Your task to perform on an android device: Open battery settings Image 0: 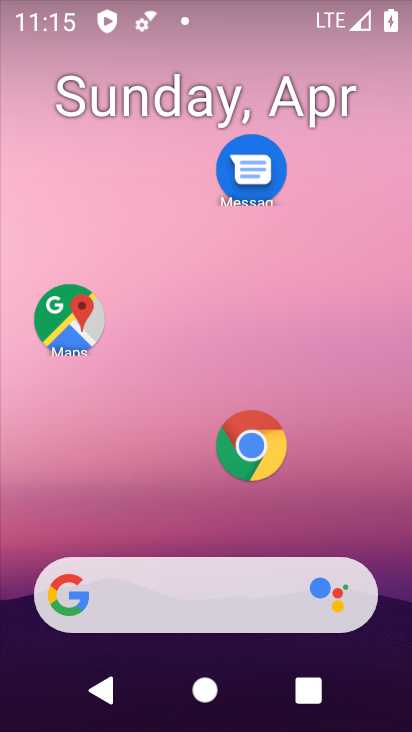
Step 0: drag from (175, 570) to (313, 91)
Your task to perform on an android device: Open battery settings Image 1: 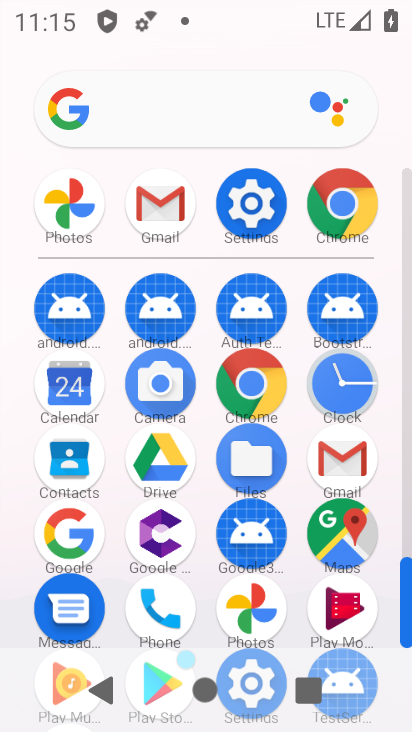
Step 1: click (257, 201)
Your task to perform on an android device: Open battery settings Image 2: 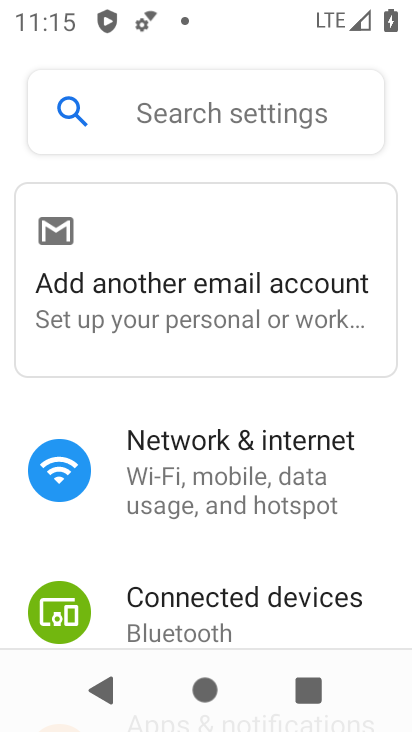
Step 2: drag from (177, 632) to (378, 28)
Your task to perform on an android device: Open battery settings Image 3: 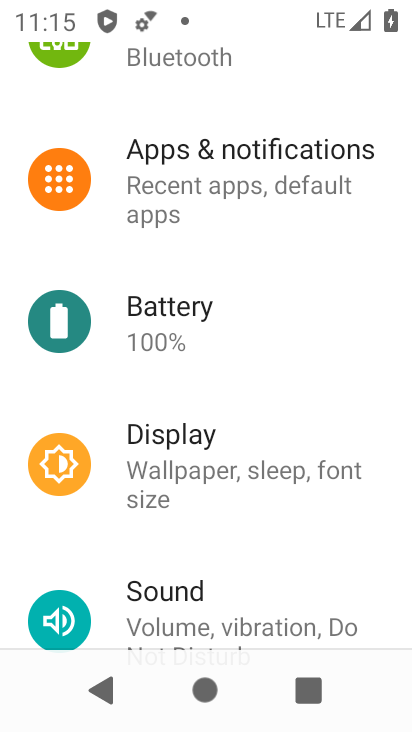
Step 3: click (178, 317)
Your task to perform on an android device: Open battery settings Image 4: 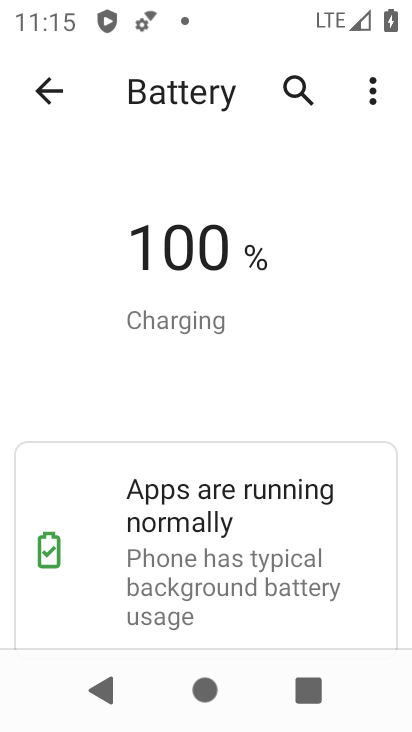
Step 4: task complete